Your task to perform on an android device: turn on bluetooth scan Image 0: 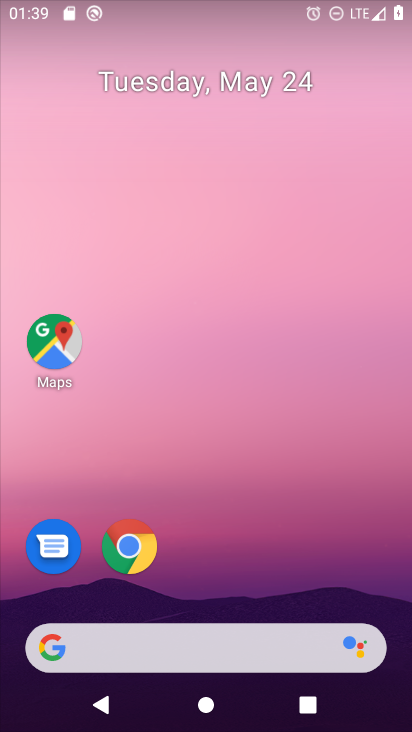
Step 0: drag from (293, 657) to (311, 79)
Your task to perform on an android device: turn on bluetooth scan Image 1: 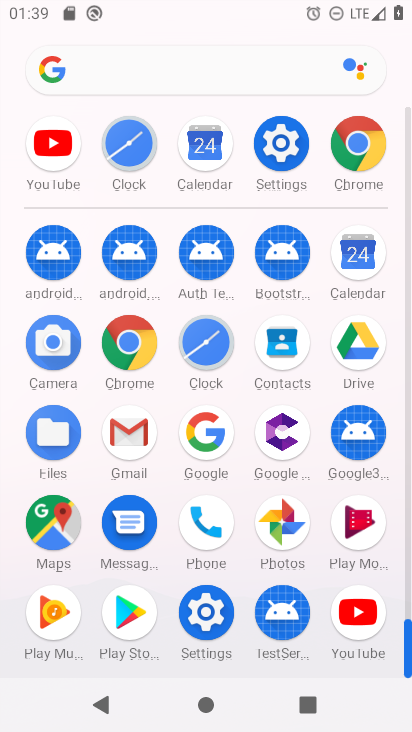
Step 1: click (289, 116)
Your task to perform on an android device: turn on bluetooth scan Image 2: 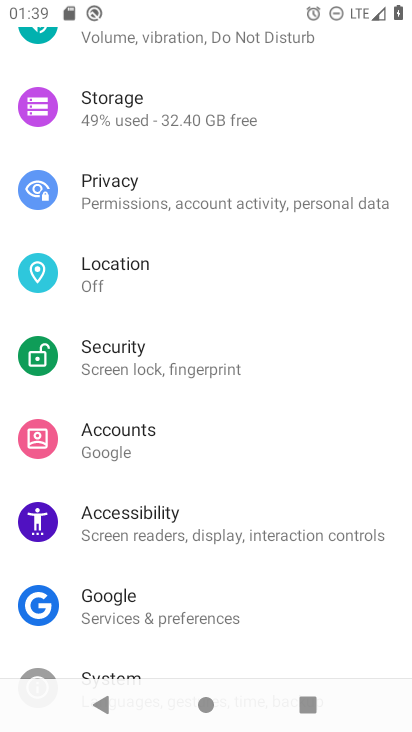
Step 2: click (111, 275)
Your task to perform on an android device: turn on bluetooth scan Image 3: 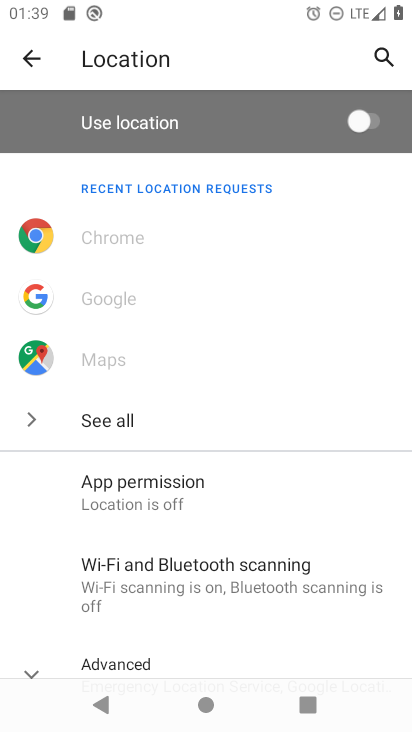
Step 3: click (216, 570)
Your task to perform on an android device: turn on bluetooth scan Image 4: 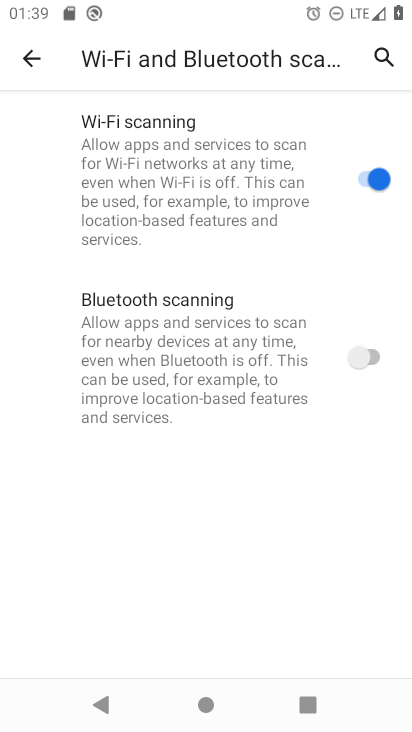
Step 4: click (368, 356)
Your task to perform on an android device: turn on bluetooth scan Image 5: 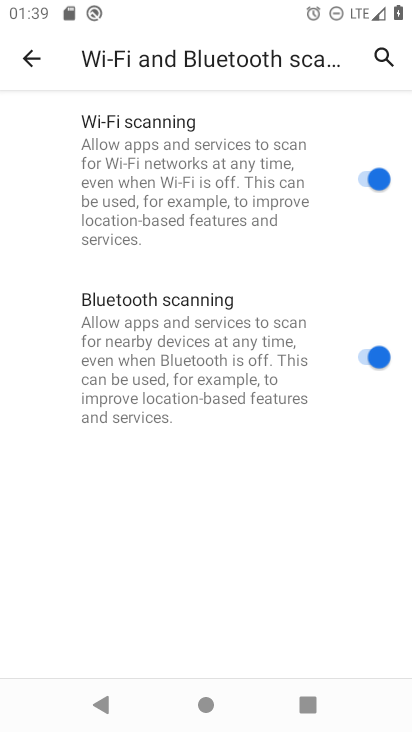
Step 5: task complete